Your task to perform on an android device: What is the recent news? Image 0: 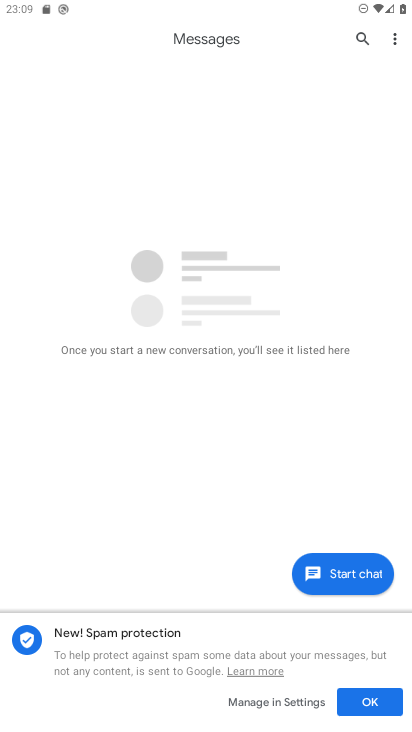
Step 0: press home button
Your task to perform on an android device: What is the recent news? Image 1: 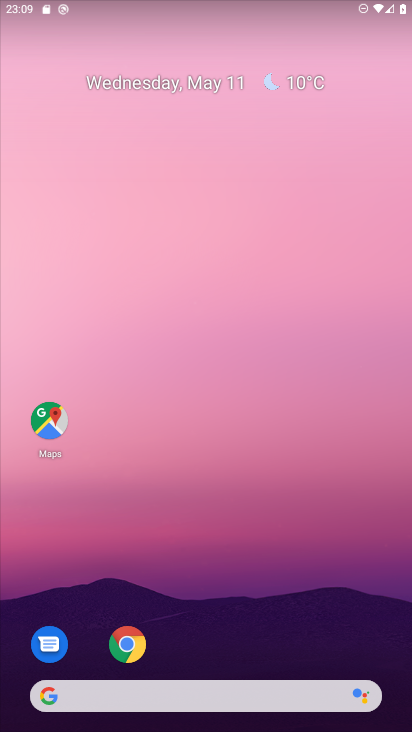
Step 1: click (260, 694)
Your task to perform on an android device: What is the recent news? Image 2: 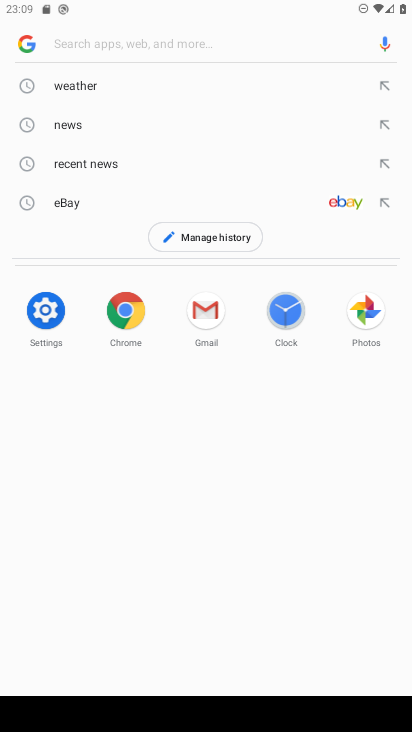
Step 2: click (69, 167)
Your task to perform on an android device: What is the recent news? Image 3: 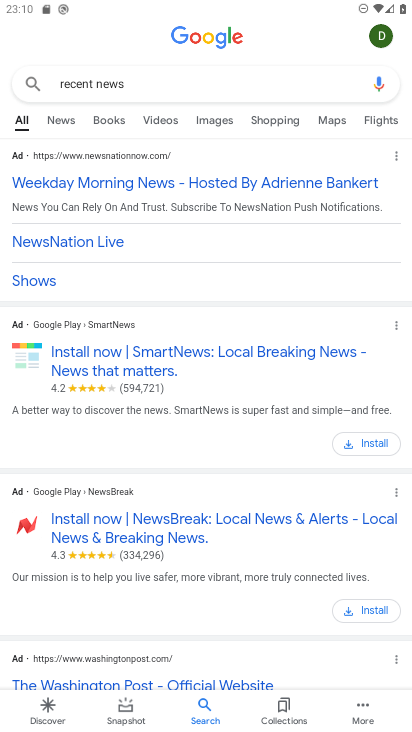
Step 3: click (59, 127)
Your task to perform on an android device: What is the recent news? Image 4: 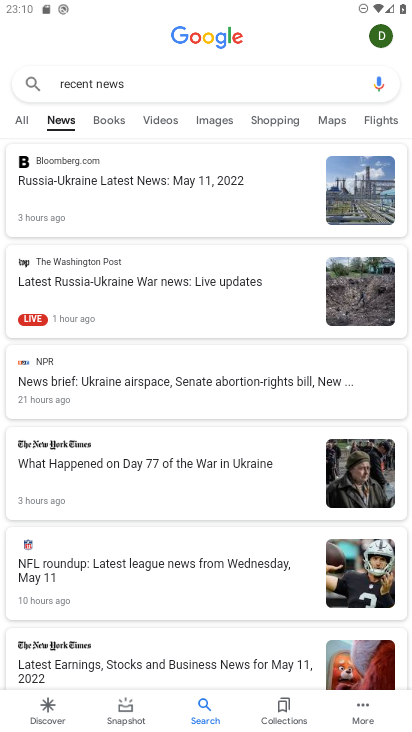
Step 4: click (119, 280)
Your task to perform on an android device: What is the recent news? Image 5: 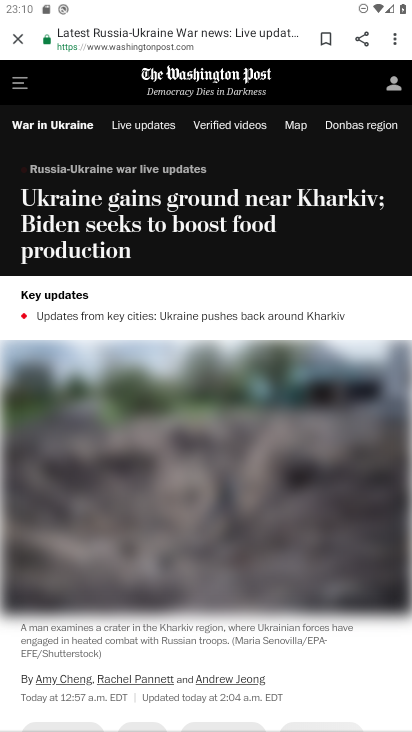
Step 5: task complete